Your task to perform on an android device: open wifi settings Image 0: 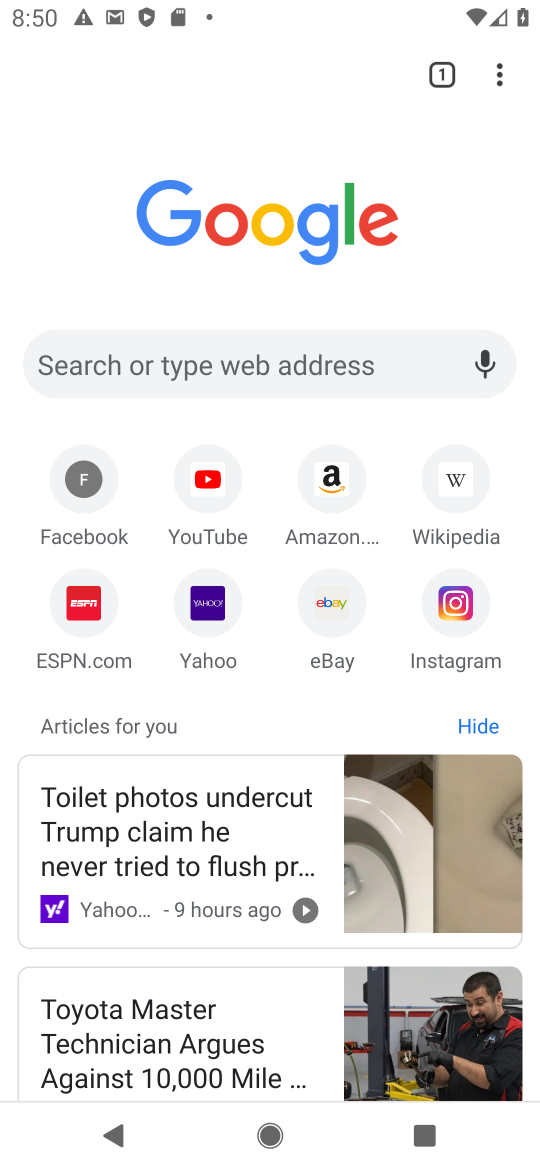
Step 0: press home button
Your task to perform on an android device: open wifi settings Image 1: 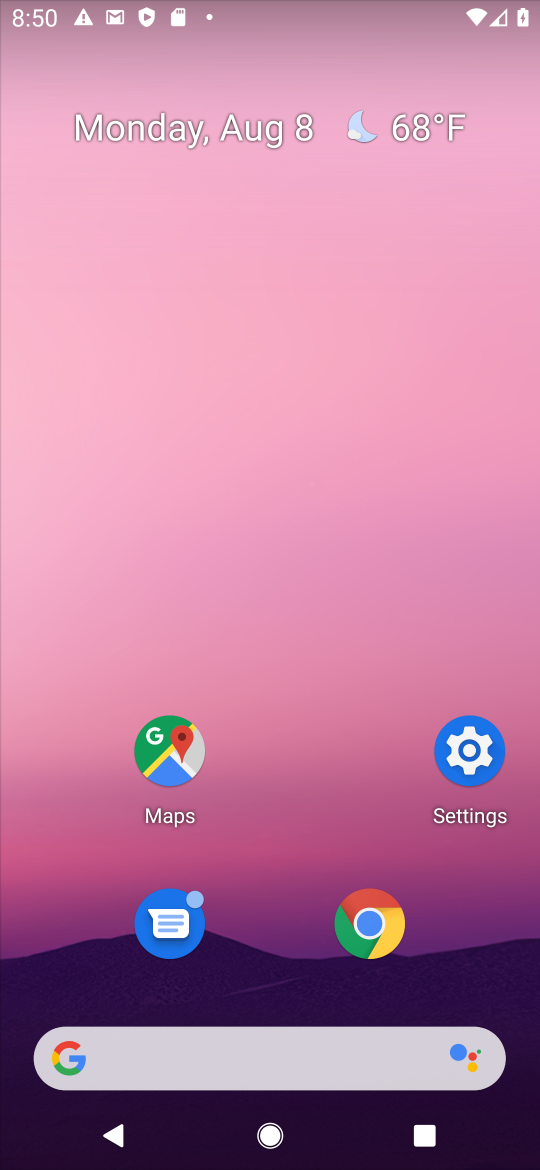
Step 1: click (478, 743)
Your task to perform on an android device: open wifi settings Image 2: 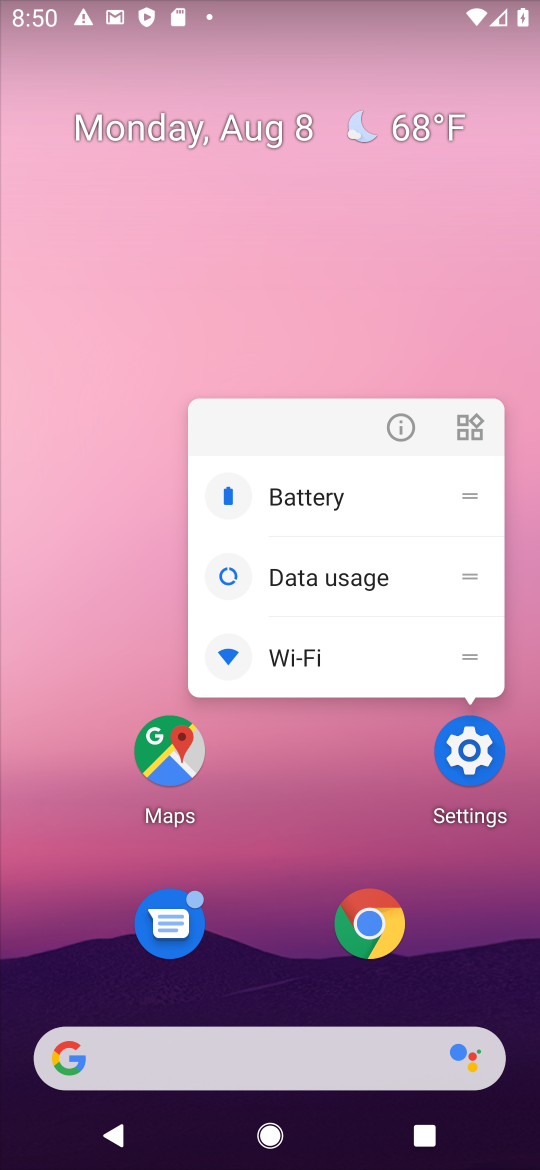
Step 2: click (478, 752)
Your task to perform on an android device: open wifi settings Image 3: 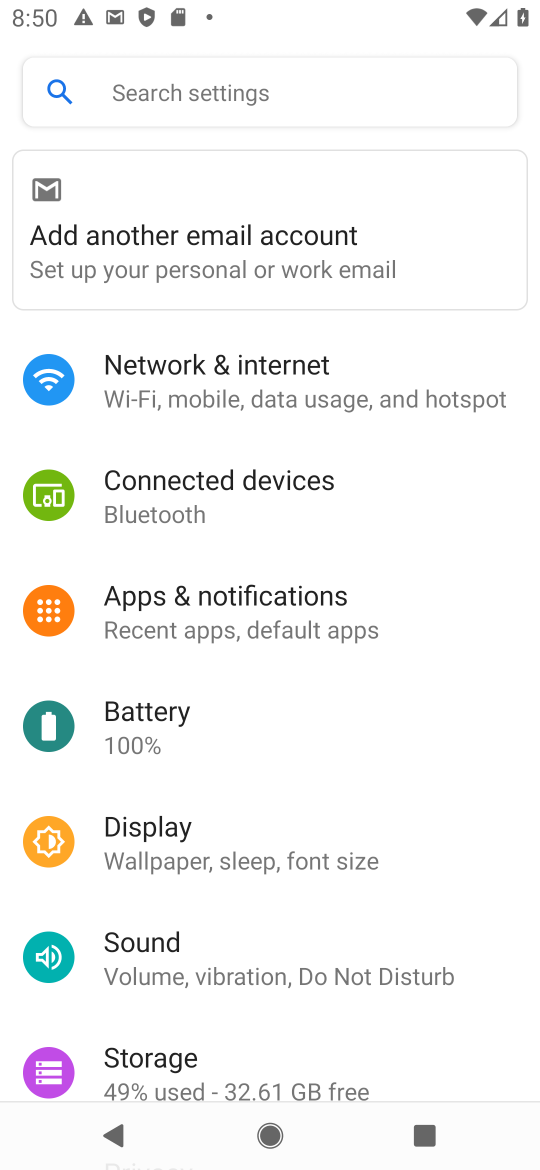
Step 3: click (227, 393)
Your task to perform on an android device: open wifi settings Image 4: 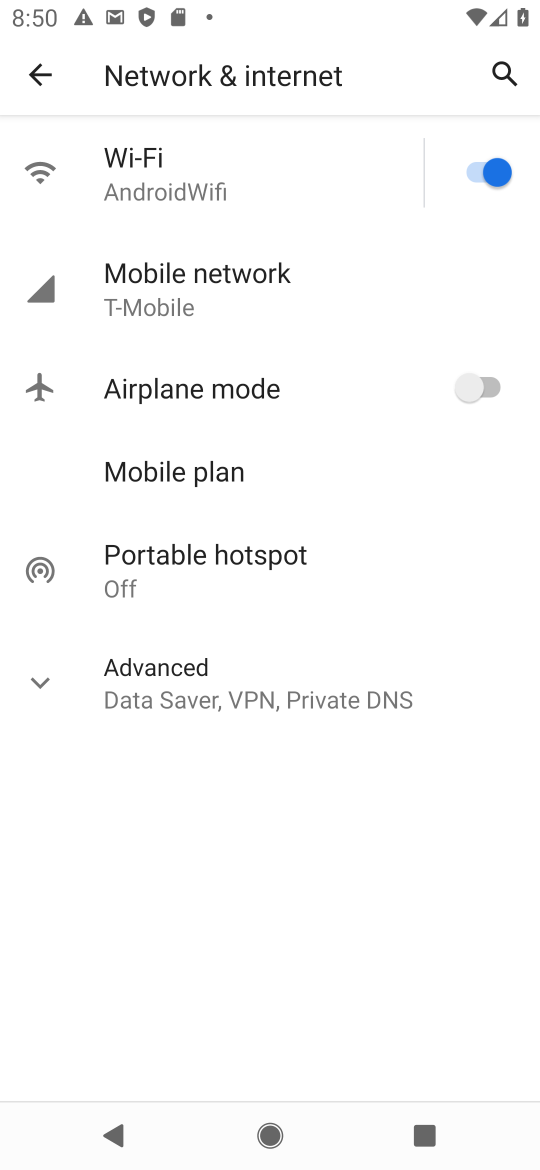
Step 4: click (126, 170)
Your task to perform on an android device: open wifi settings Image 5: 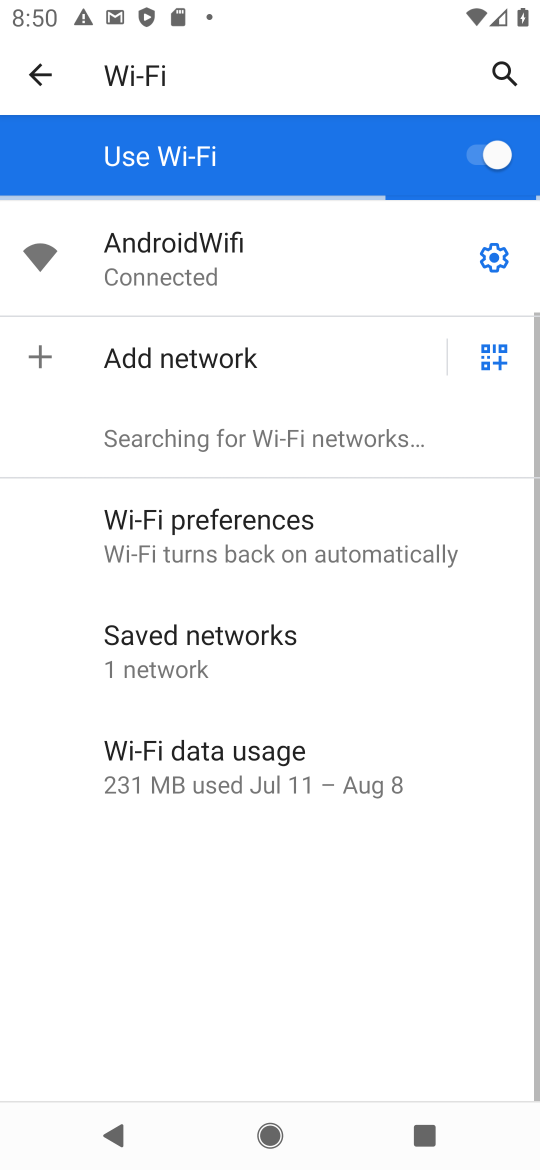
Step 5: task complete